Your task to perform on an android device: Open eBay Image 0: 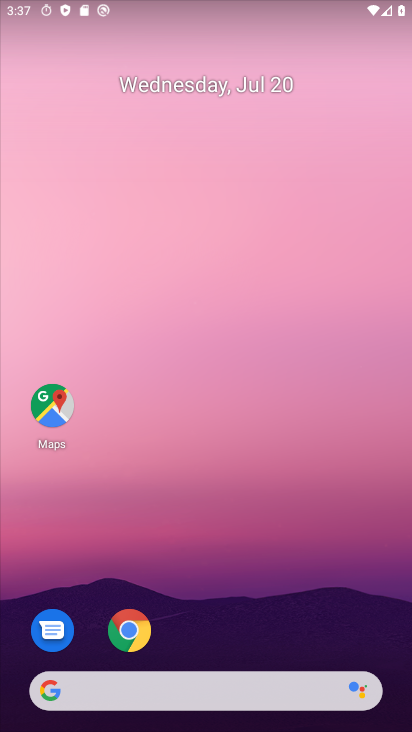
Step 0: press home button
Your task to perform on an android device: Open eBay Image 1: 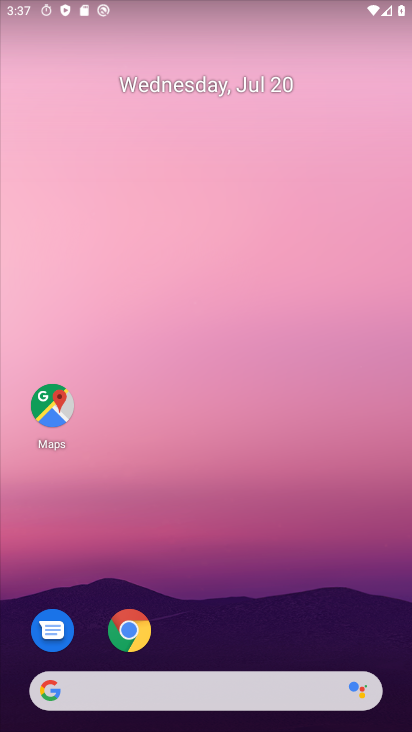
Step 1: click (39, 695)
Your task to perform on an android device: Open eBay Image 2: 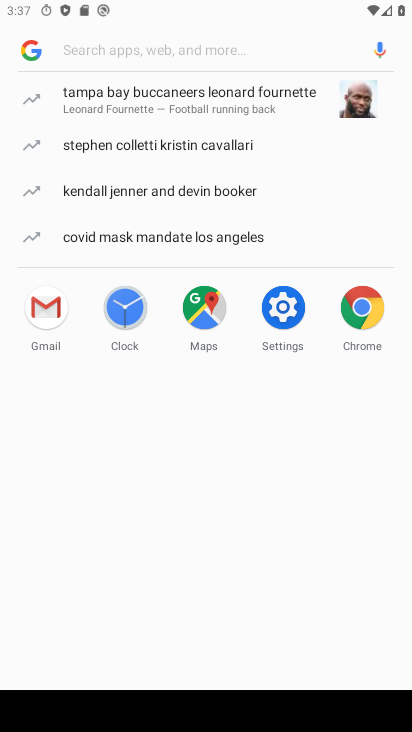
Step 2: type "eBay"
Your task to perform on an android device: Open eBay Image 3: 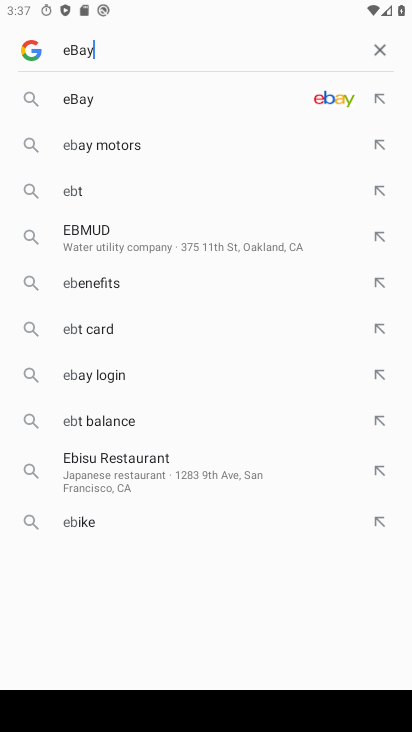
Step 3: press enter
Your task to perform on an android device: Open eBay Image 4: 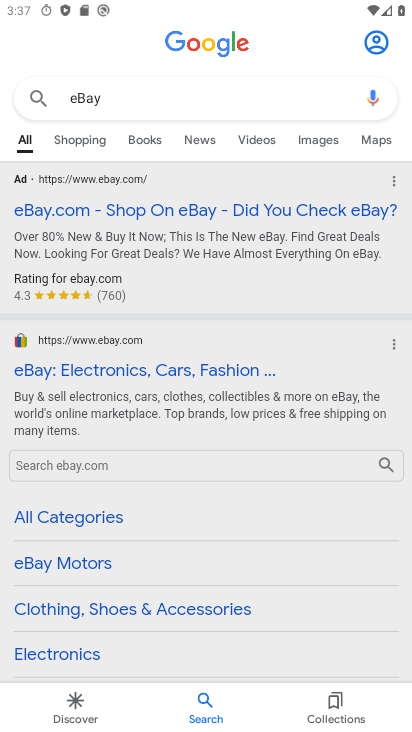
Step 4: click (179, 217)
Your task to perform on an android device: Open eBay Image 5: 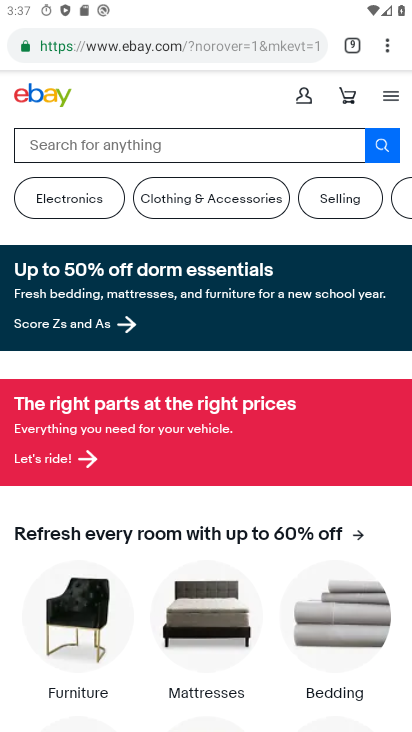
Step 5: task complete